Your task to perform on an android device: move a message to another label in the gmail app Image 0: 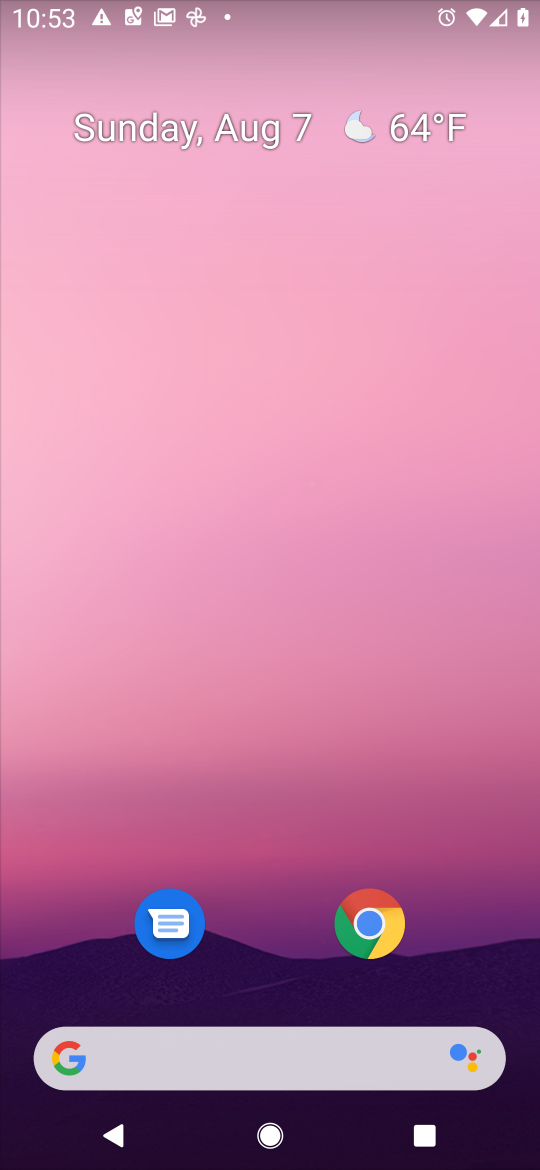
Step 0: drag from (460, 938) to (248, 103)
Your task to perform on an android device: move a message to another label in the gmail app Image 1: 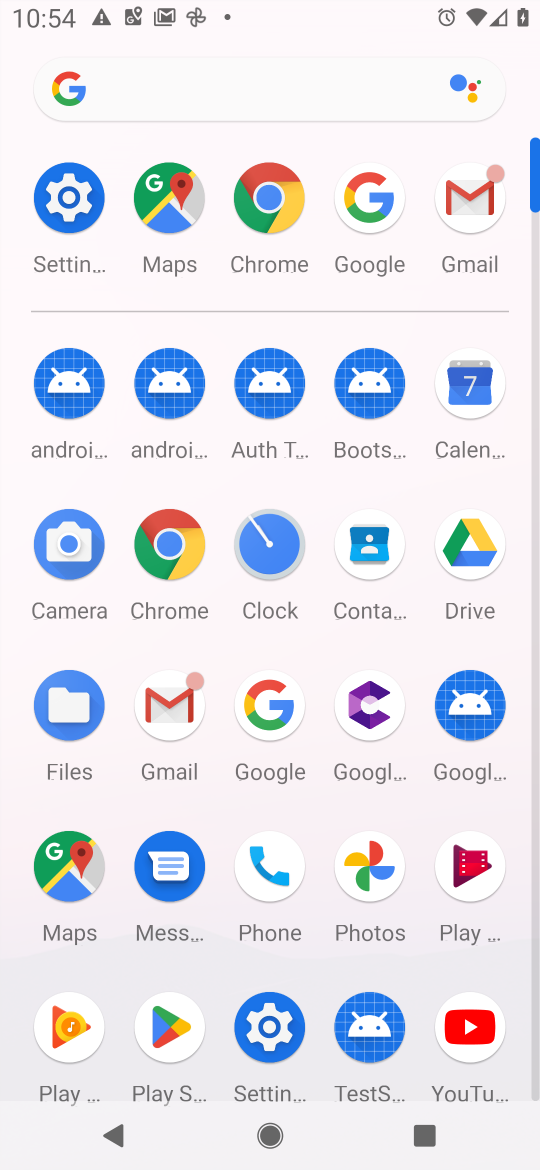
Step 1: click (160, 700)
Your task to perform on an android device: move a message to another label in the gmail app Image 2: 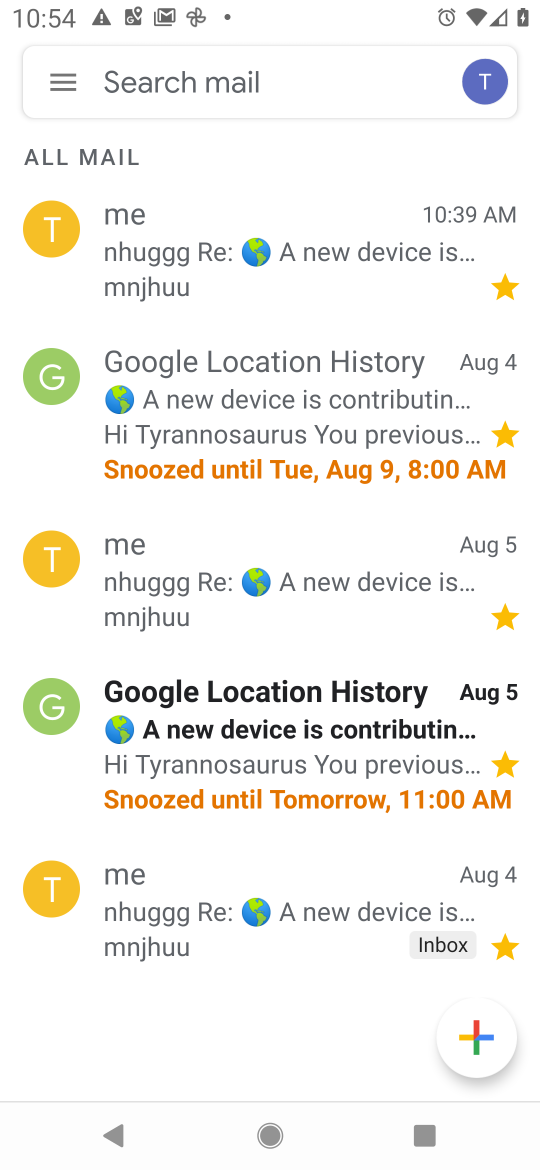
Step 2: task complete